Your task to perform on an android device: Open Maps and search for coffee Image 0: 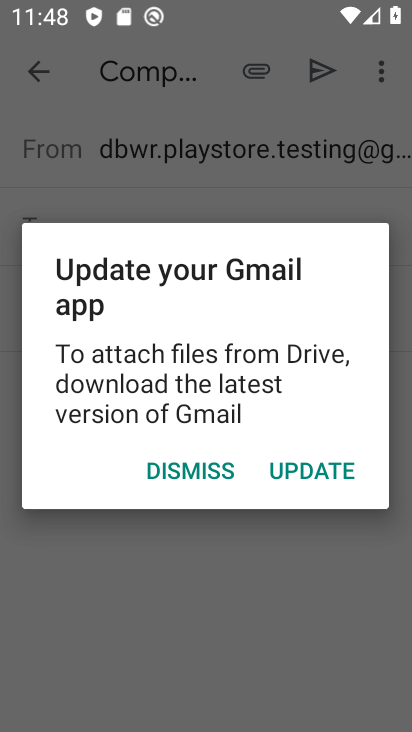
Step 0: press home button
Your task to perform on an android device: Open Maps and search for coffee Image 1: 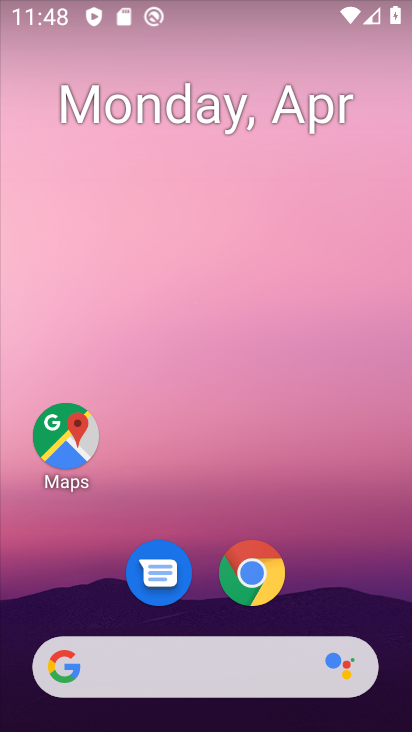
Step 1: click (39, 431)
Your task to perform on an android device: Open Maps and search for coffee Image 2: 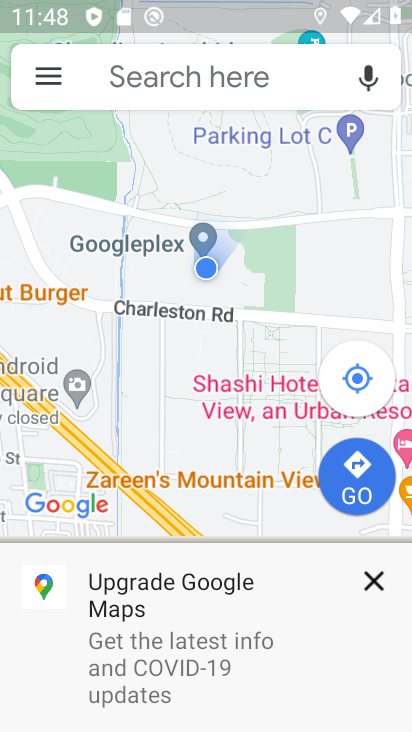
Step 2: click (243, 87)
Your task to perform on an android device: Open Maps and search for coffee Image 3: 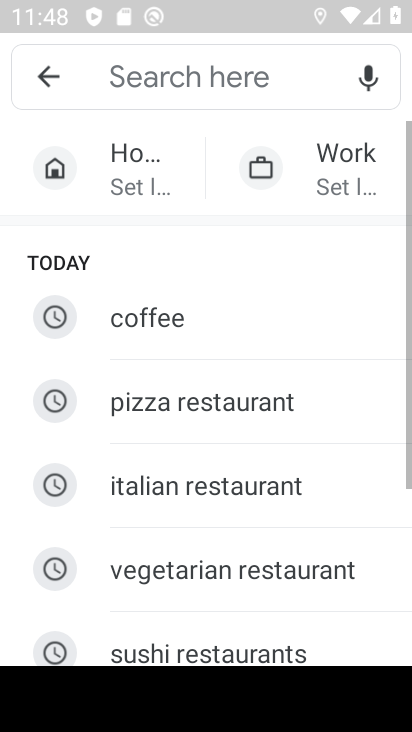
Step 3: click (175, 308)
Your task to perform on an android device: Open Maps and search for coffee Image 4: 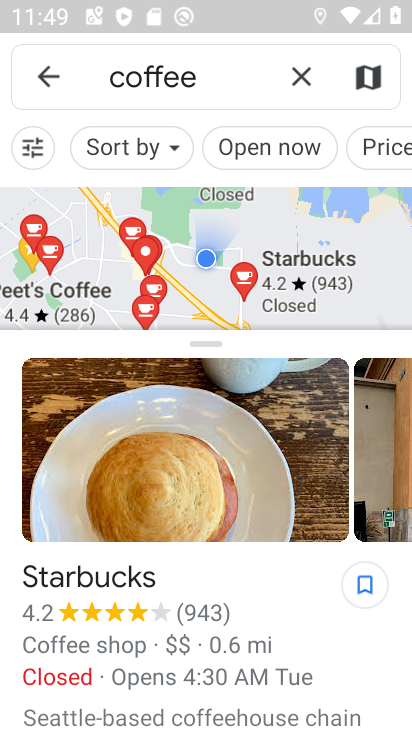
Step 4: task complete